Your task to perform on an android device: delete browsing data in the chrome app Image 0: 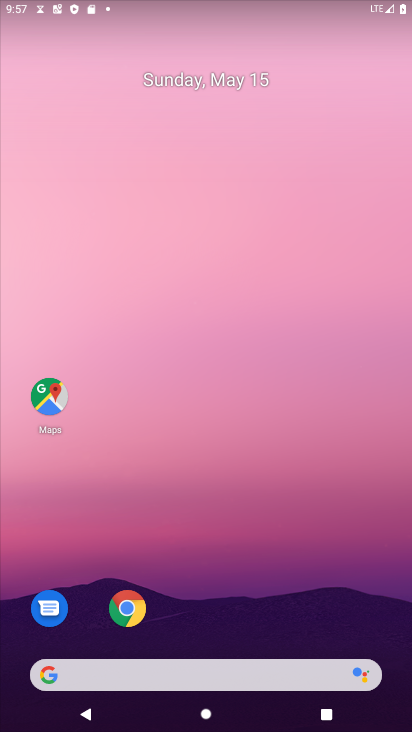
Step 0: drag from (241, 576) to (36, 2)
Your task to perform on an android device: delete browsing data in the chrome app Image 1: 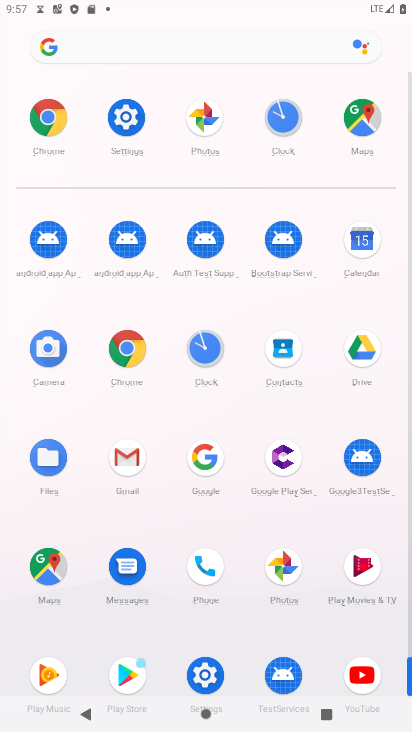
Step 1: click (49, 112)
Your task to perform on an android device: delete browsing data in the chrome app Image 2: 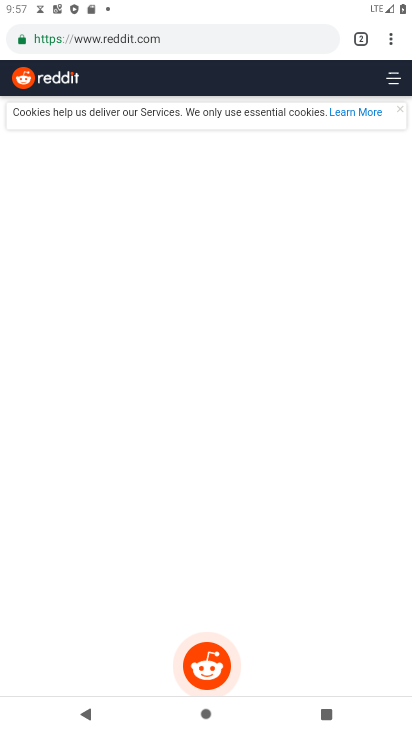
Step 2: drag from (386, 41) to (246, 226)
Your task to perform on an android device: delete browsing data in the chrome app Image 3: 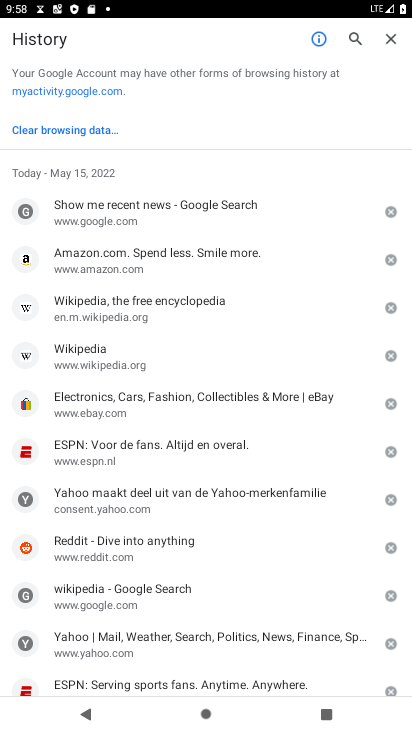
Step 3: click (38, 122)
Your task to perform on an android device: delete browsing data in the chrome app Image 4: 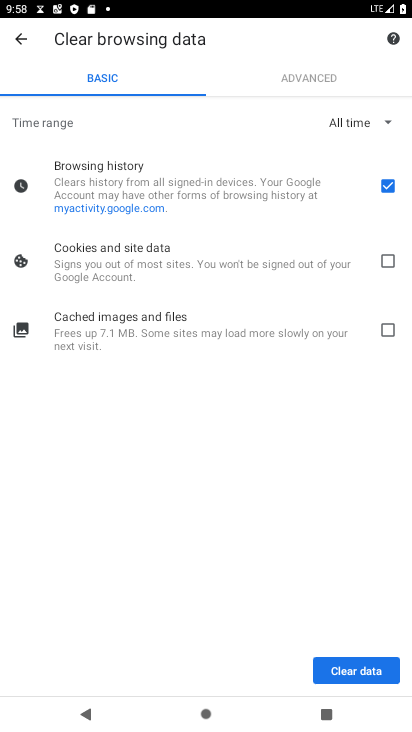
Step 4: click (361, 667)
Your task to perform on an android device: delete browsing data in the chrome app Image 5: 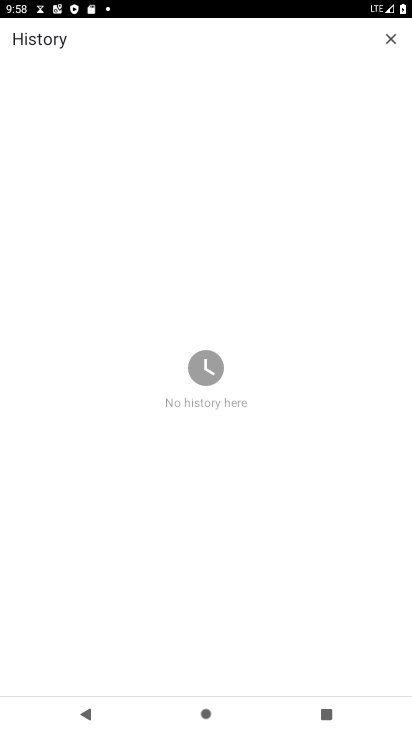
Step 5: task complete